Your task to perform on an android device: see creations saved in the google photos Image 0: 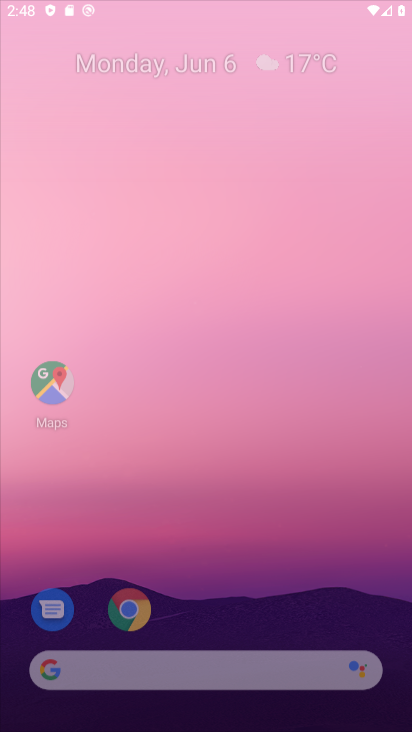
Step 0: click (58, 392)
Your task to perform on an android device: see creations saved in the google photos Image 1: 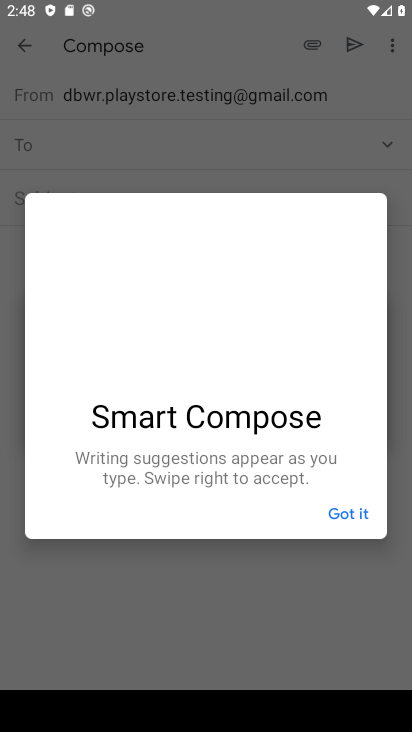
Step 1: press home button
Your task to perform on an android device: see creations saved in the google photos Image 2: 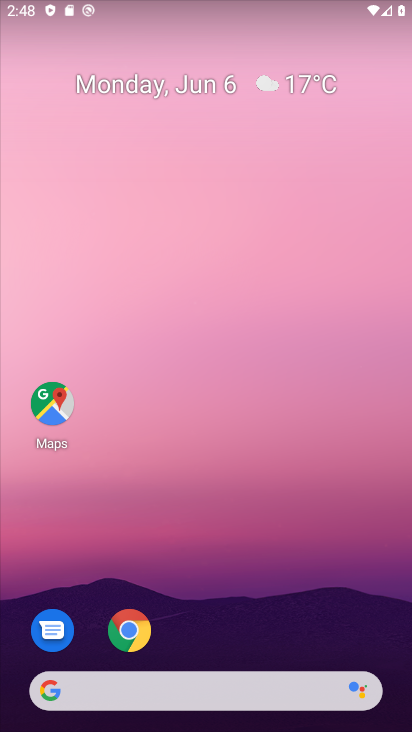
Step 2: drag from (179, 629) to (212, 351)
Your task to perform on an android device: see creations saved in the google photos Image 3: 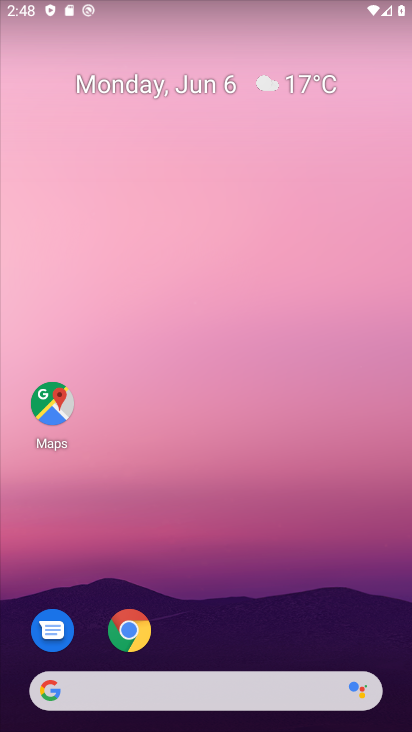
Step 3: drag from (211, 656) to (201, 221)
Your task to perform on an android device: see creations saved in the google photos Image 4: 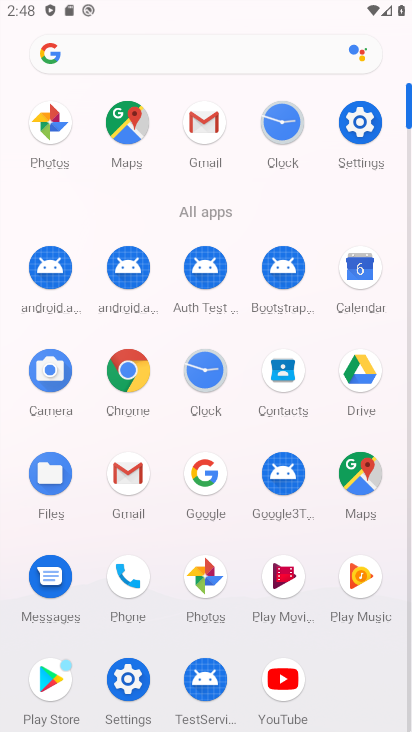
Step 4: click (197, 569)
Your task to perform on an android device: see creations saved in the google photos Image 5: 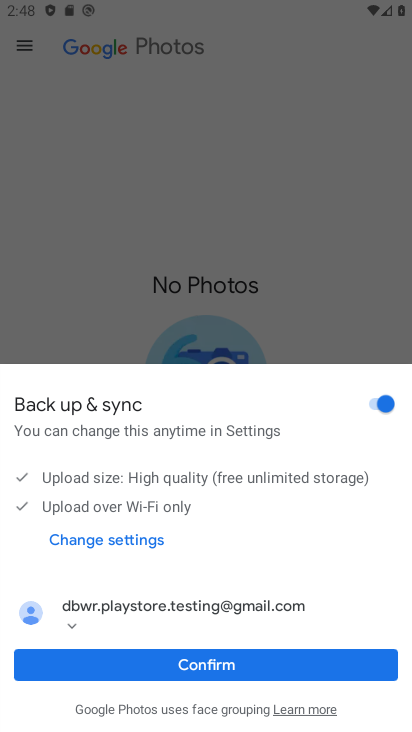
Step 5: click (210, 662)
Your task to perform on an android device: see creations saved in the google photos Image 6: 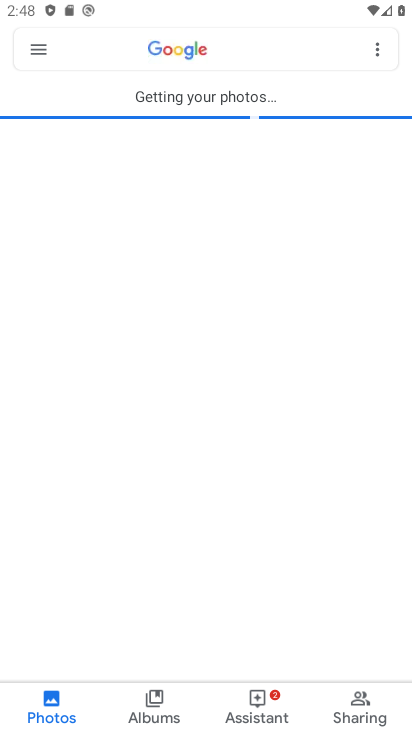
Step 6: click (151, 700)
Your task to perform on an android device: see creations saved in the google photos Image 7: 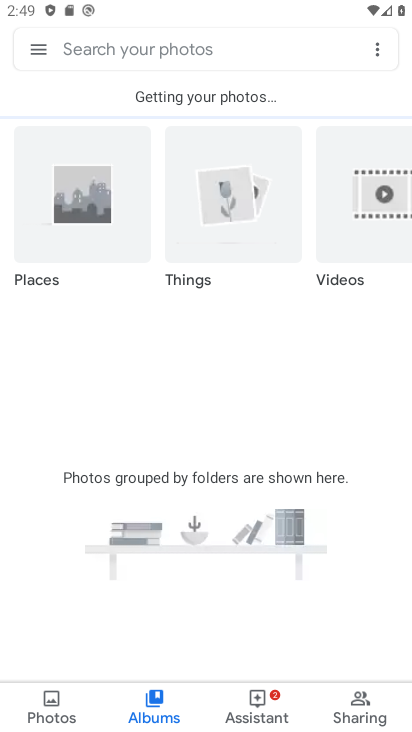
Step 7: click (53, 708)
Your task to perform on an android device: see creations saved in the google photos Image 8: 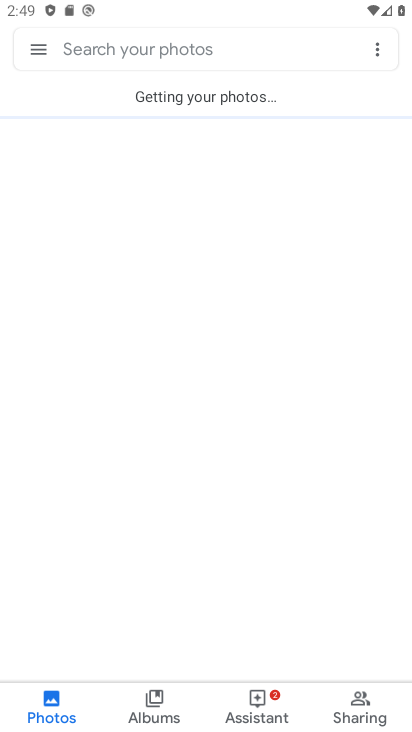
Step 8: click (156, 690)
Your task to perform on an android device: see creations saved in the google photos Image 9: 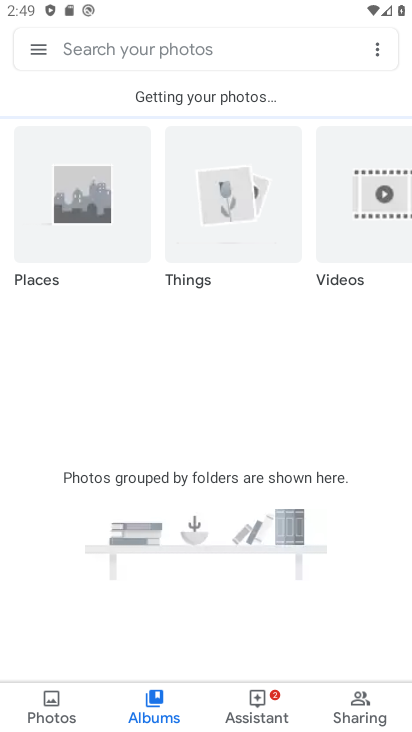
Step 9: click (89, 188)
Your task to perform on an android device: see creations saved in the google photos Image 10: 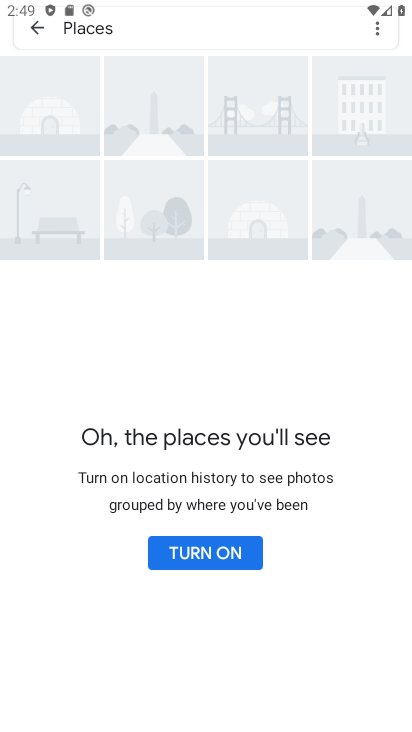
Step 10: press back button
Your task to perform on an android device: see creations saved in the google photos Image 11: 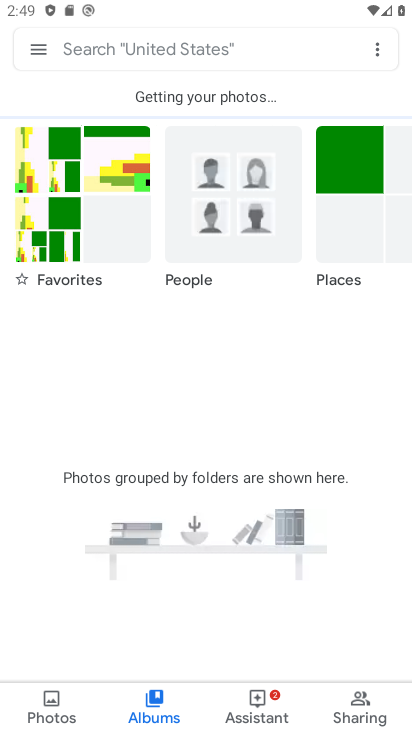
Step 11: click (53, 167)
Your task to perform on an android device: see creations saved in the google photos Image 12: 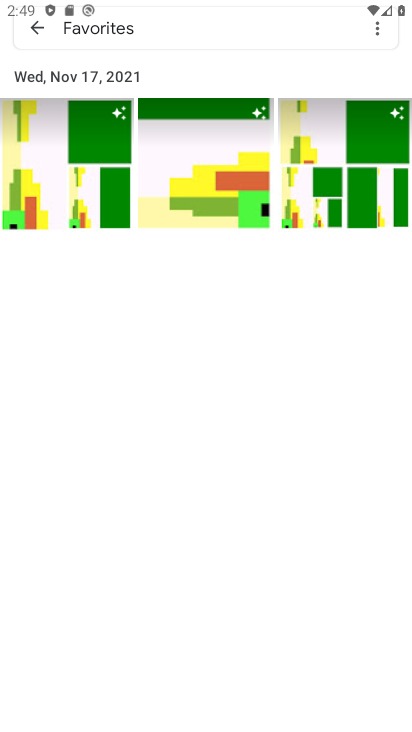
Step 12: task complete